Your task to perform on an android device: see tabs open on other devices in the chrome app Image 0: 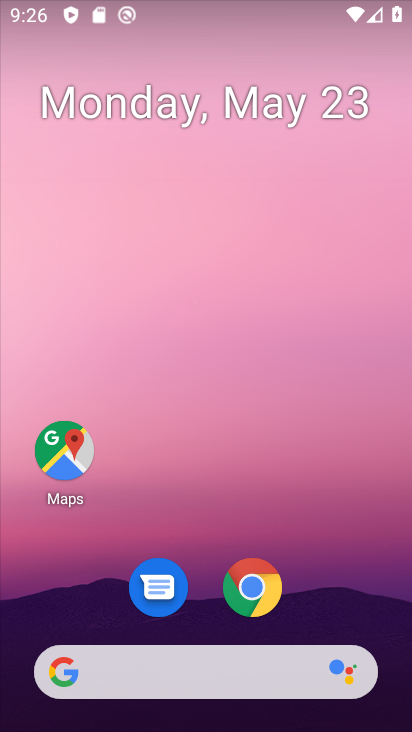
Step 0: click (269, 587)
Your task to perform on an android device: see tabs open on other devices in the chrome app Image 1: 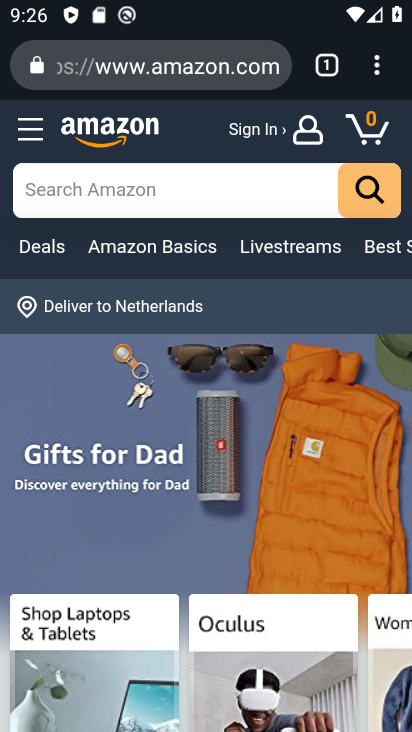
Step 1: drag from (378, 76) to (133, 307)
Your task to perform on an android device: see tabs open on other devices in the chrome app Image 2: 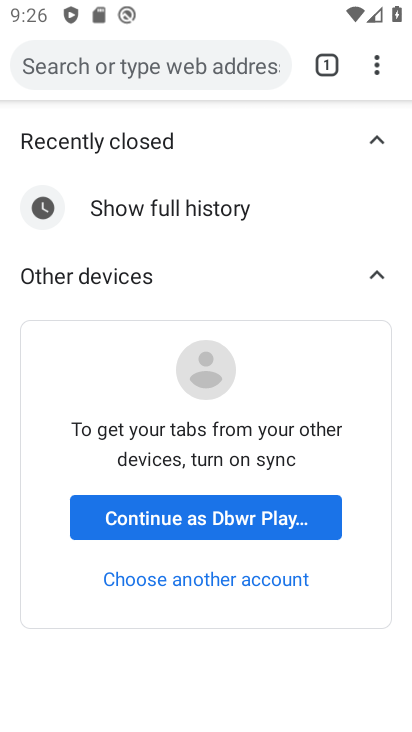
Step 2: click (214, 506)
Your task to perform on an android device: see tabs open on other devices in the chrome app Image 3: 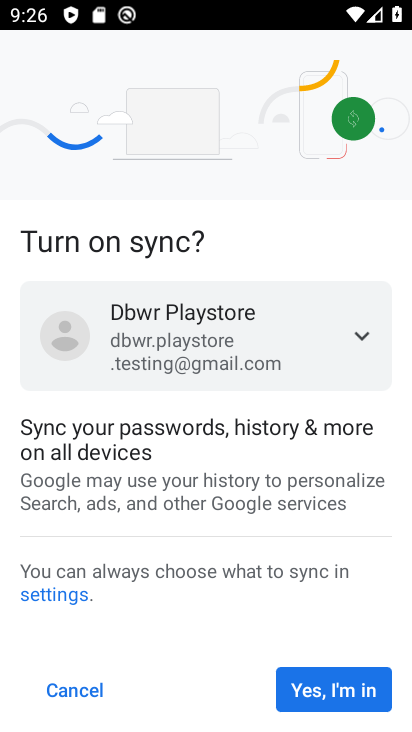
Step 3: click (368, 693)
Your task to perform on an android device: see tabs open on other devices in the chrome app Image 4: 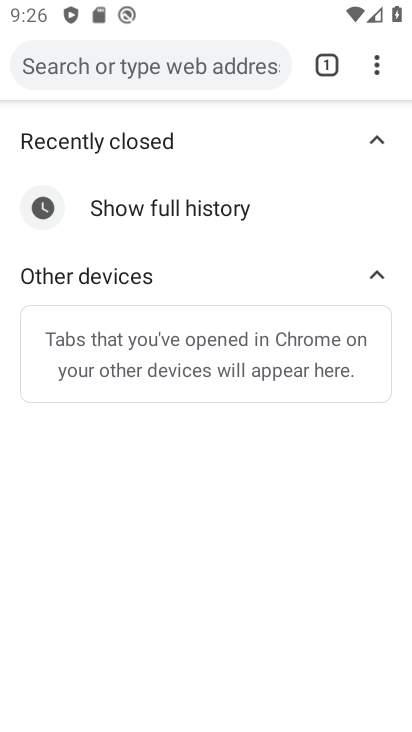
Step 4: task complete